Your task to perform on an android device: What's on my calendar tomorrow? Image 0: 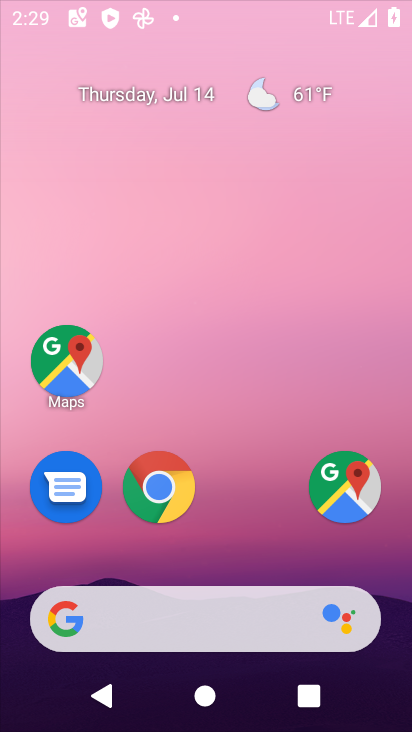
Step 0: drag from (259, 454) to (259, 132)
Your task to perform on an android device: What's on my calendar tomorrow? Image 1: 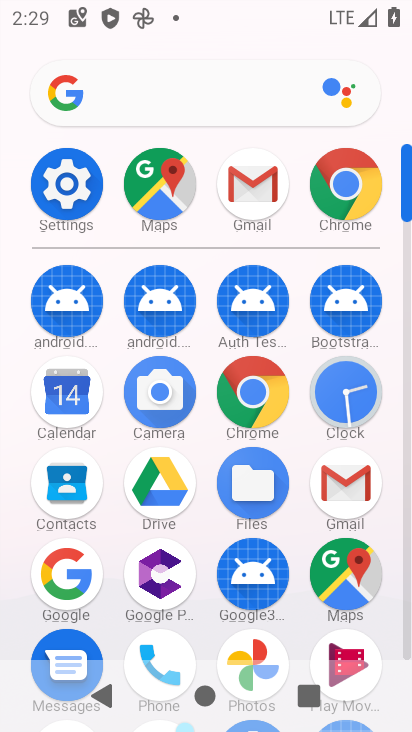
Step 1: click (58, 406)
Your task to perform on an android device: What's on my calendar tomorrow? Image 2: 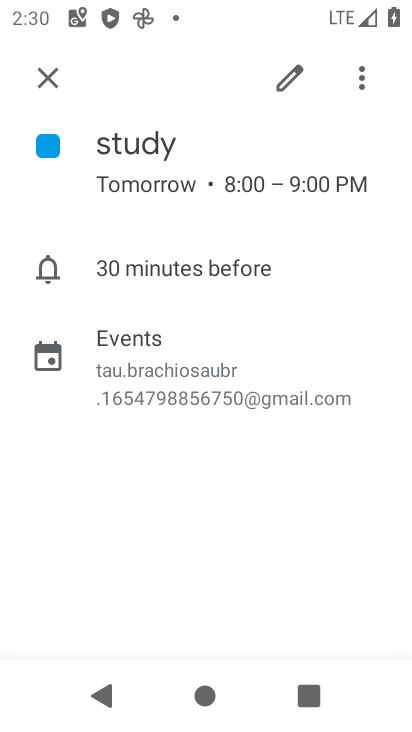
Step 2: press back button
Your task to perform on an android device: What's on my calendar tomorrow? Image 3: 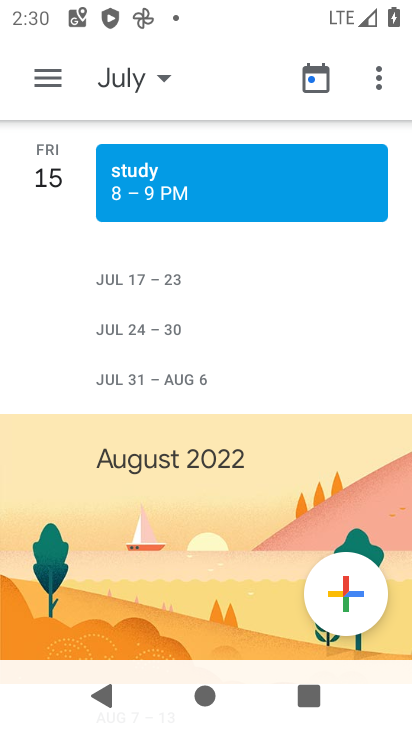
Step 3: click (205, 197)
Your task to perform on an android device: What's on my calendar tomorrow? Image 4: 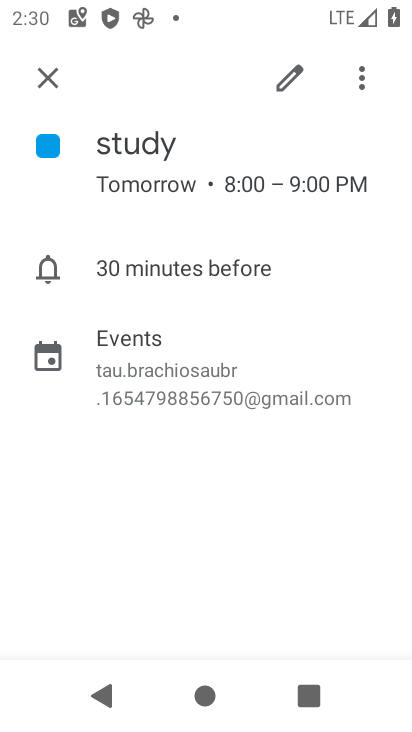
Step 4: task complete